Your task to perform on an android device: Go to accessibility settings Image 0: 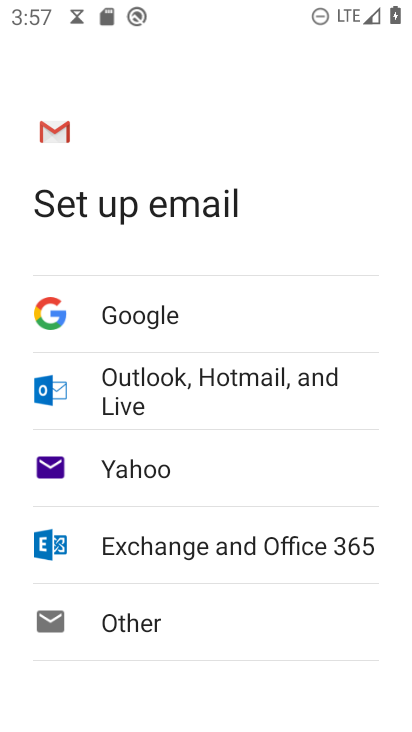
Step 0: press home button
Your task to perform on an android device: Go to accessibility settings Image 1: 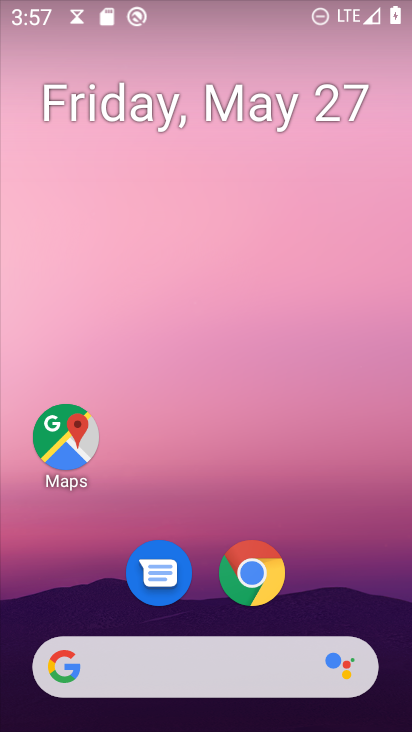
Step 1: drag from (307, 594) to (358, 60)
Your task to perform on an android device: Go to accessibility settings Image 2: 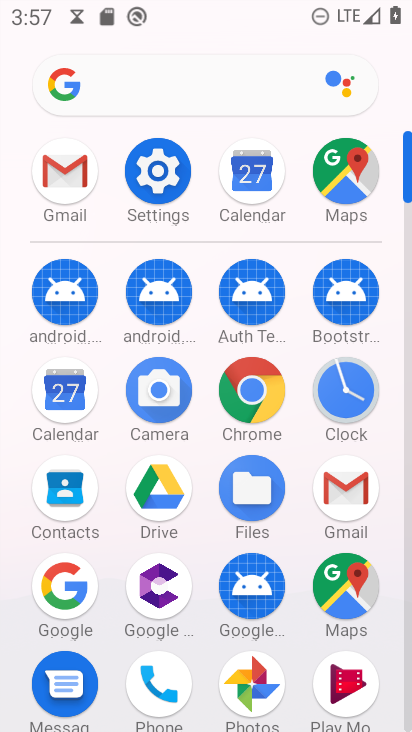
Step 2: click (159, 186)
Your task to perform on an android device: Go to accessibility settings Image 3: 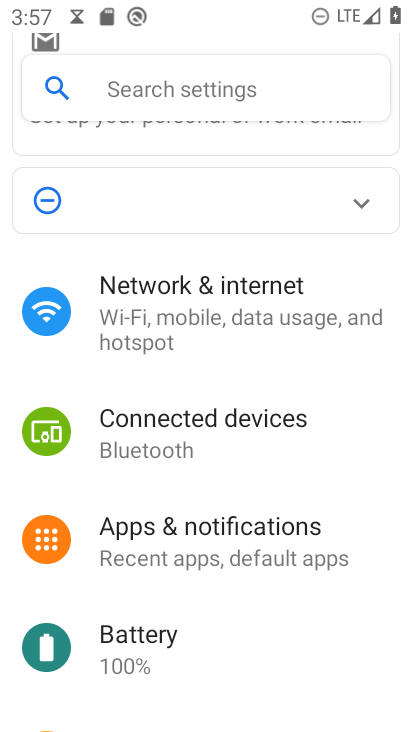
Step 3: drag from (173, 649) to (183, 118)
Your task to perform on an android device: Go to accessibility settings Image 4: 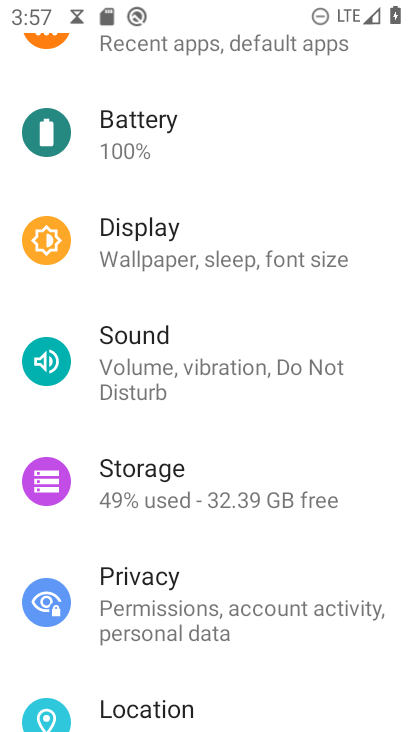
Step 4: drag from (144, 691) to (242, 119)
Your task to perform on an android device: Go to accessibility settings Image 5: 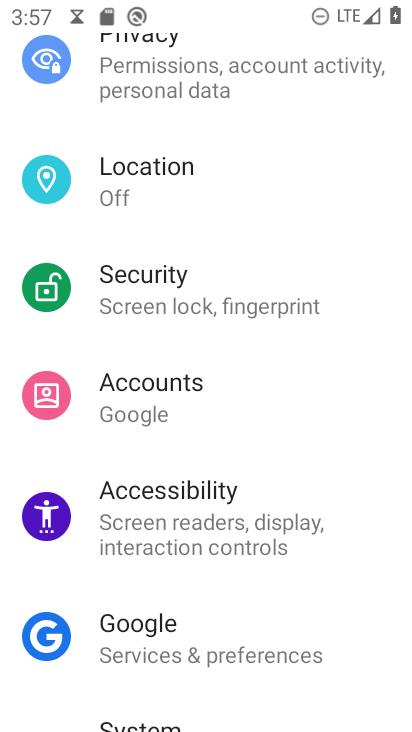
Step 5: click (185, 532)
Your task to perform on an android device: Go to accessibility settings Image 6: 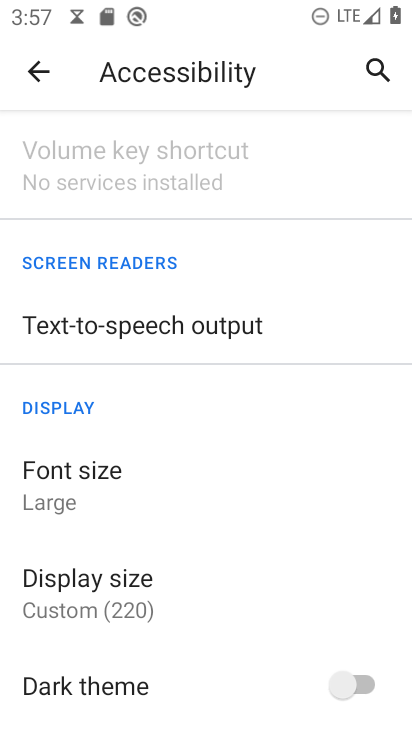
Step 6: task complete